Your task to perform on an android device: Go to Google Image 0: 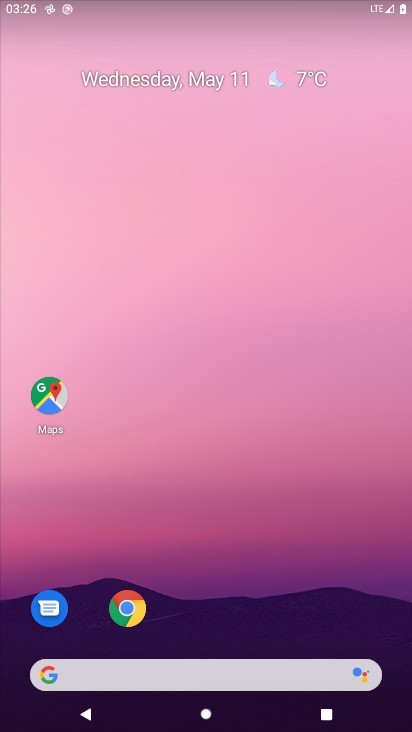
Step 0: drag from (217, 635) to (279, 128)
Your task to perform on an android device: Go to Google Image 1: 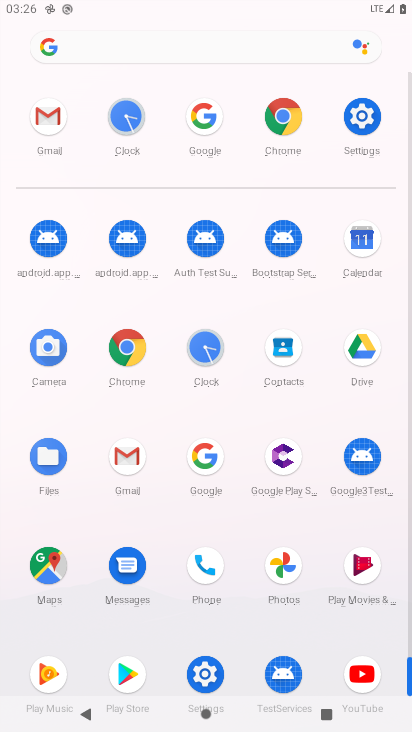
Step 1: click (203, 461)
Your task to perform on an android device: Go to Google Image 2: 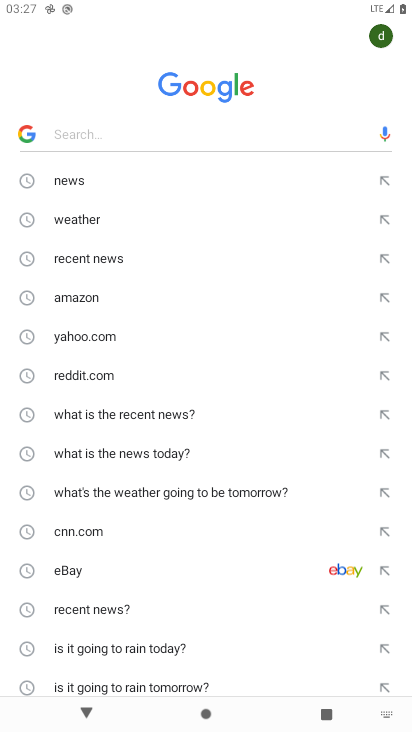
Step 2: task complete